Your task to perform on an android device: Check out the new ikea catalog. Image 0: 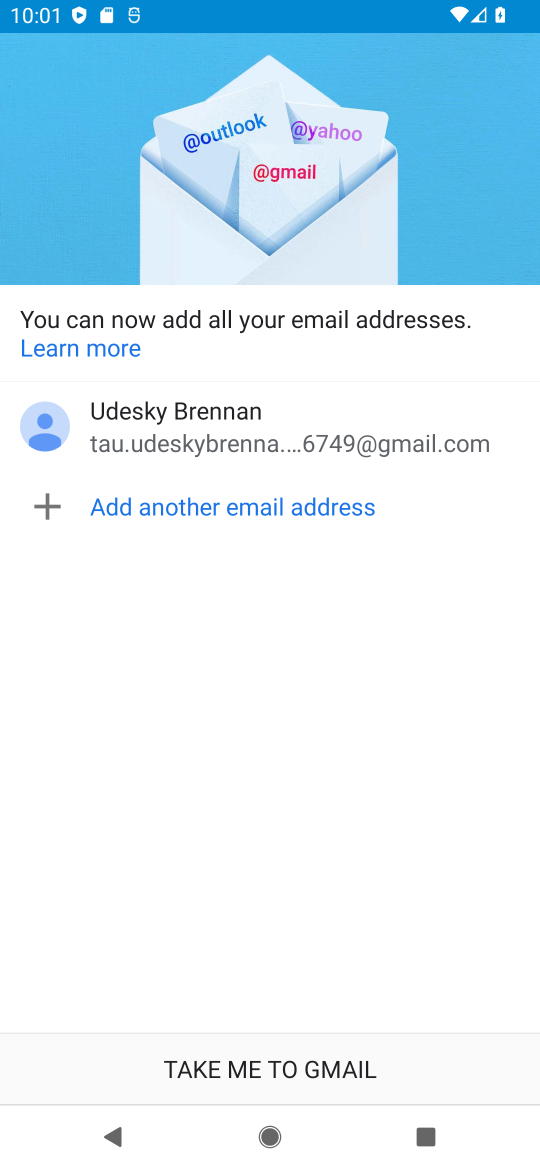
Step 0: press home button
Your task to perform on an android device: Check out the new ikea catalog. Image 1: 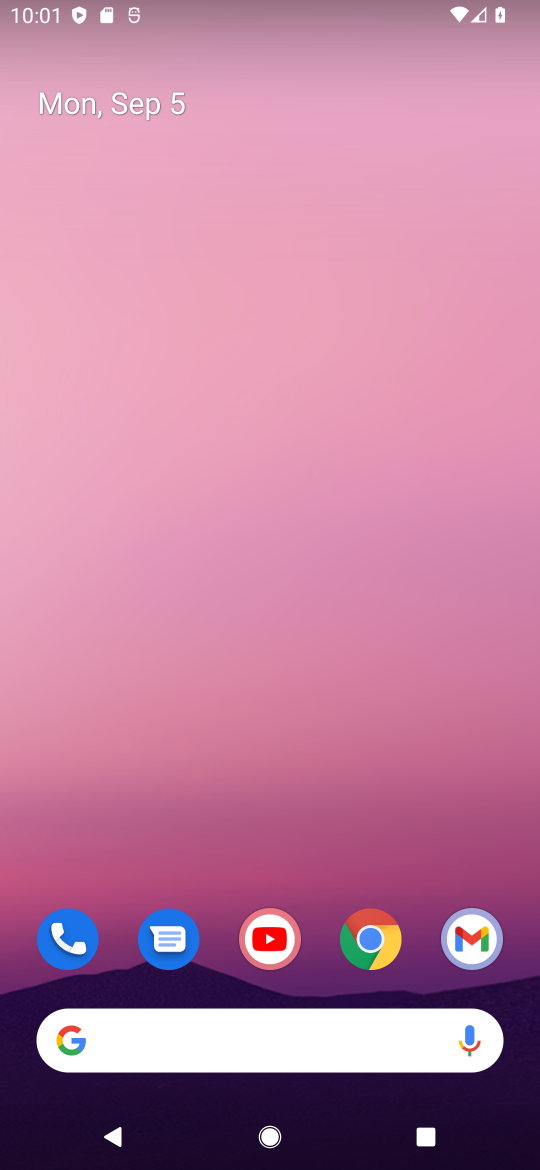
Step 1: drag from (293, 840) to (285, 64)
Your task to perform on an android device: Check out the new ikea catalog. Image 2: 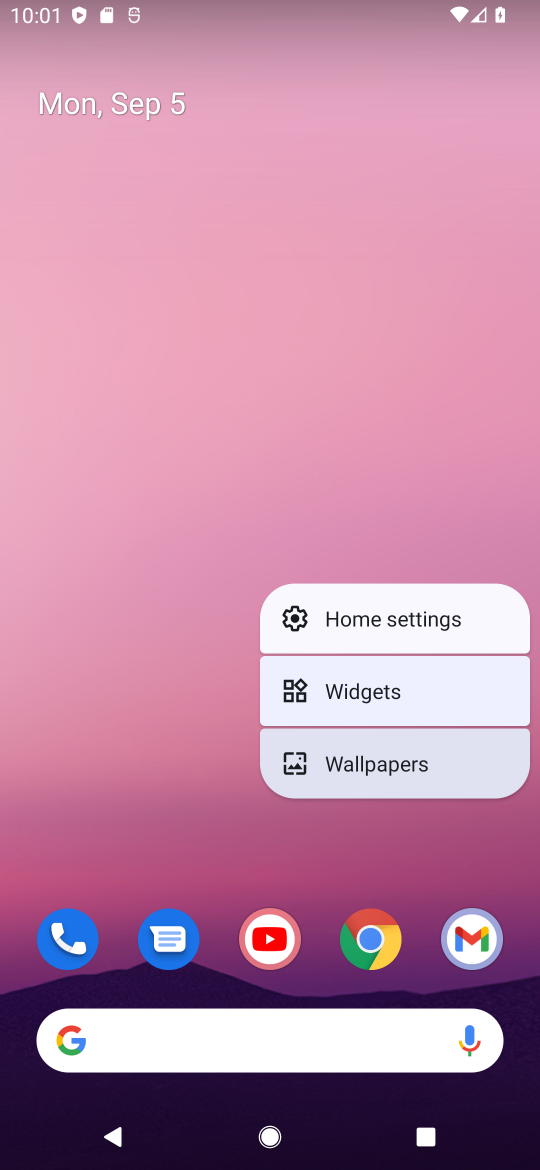
Step 2: click (320, 256)
Your task to perform on an android device: Check out the new ikea catalog. Image 3: 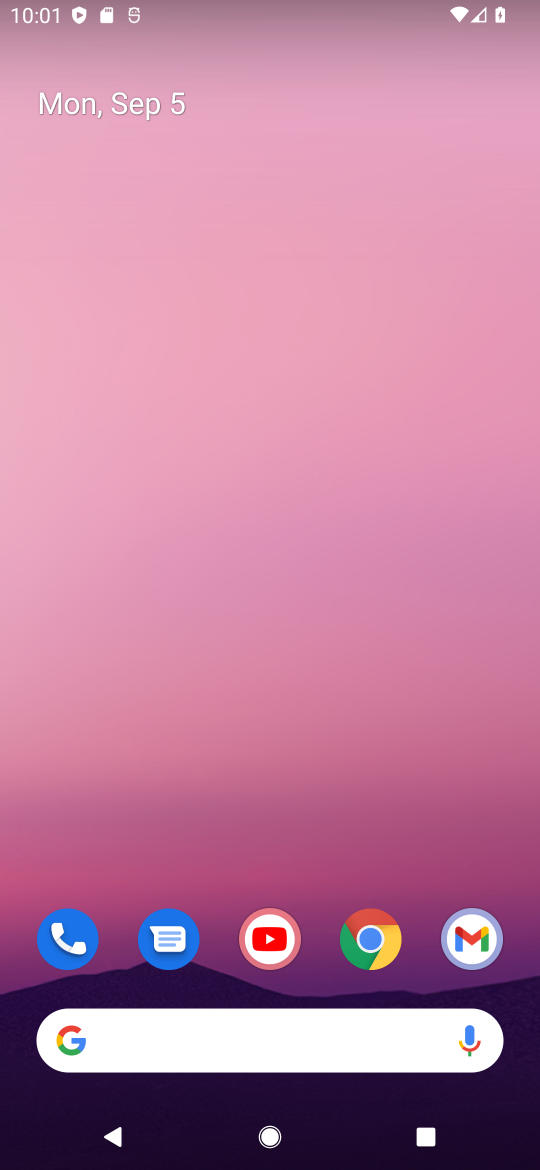
Step 3: drag from (335, 887) to (352, 229)
Your task to perform on an android device: Check out the new ikea catalog. Image 4: 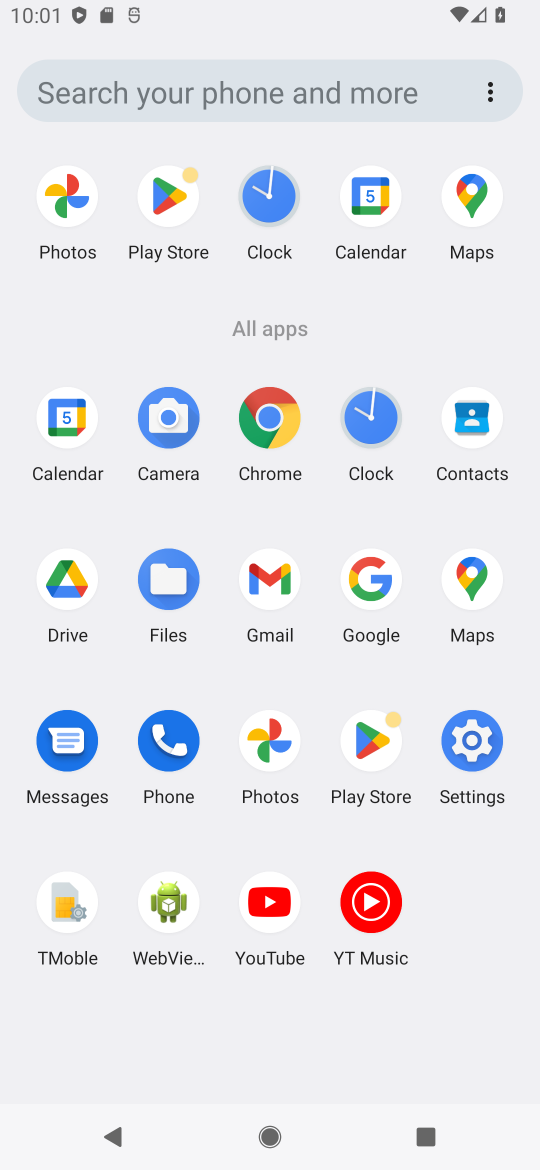
Step 4: click (283, 420)
Your task to perform on an android device: Check out the new ikea catalog. Image 5: 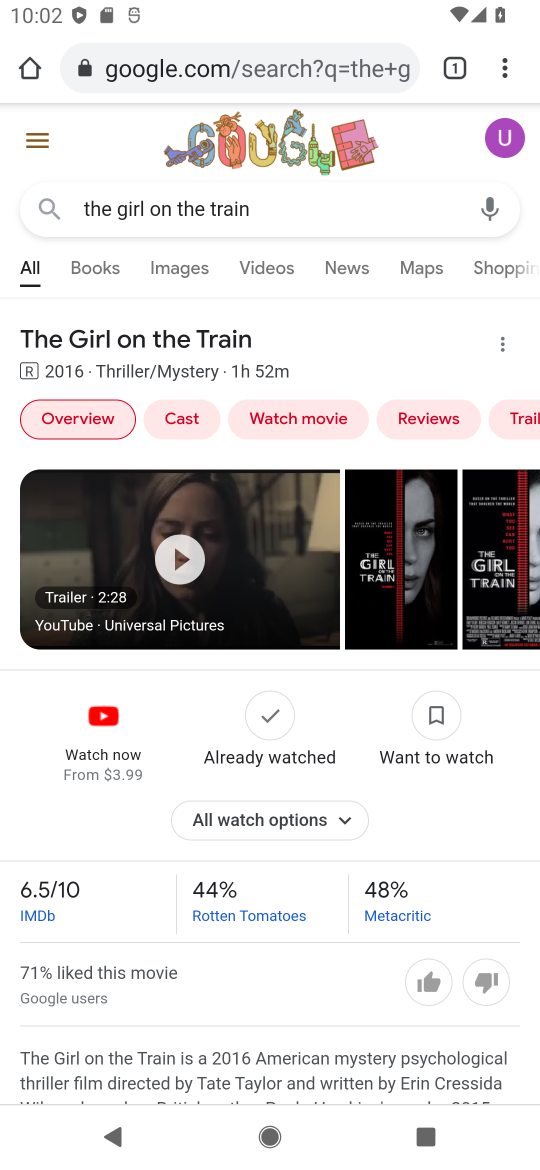
Step 5: click (281, 203)
Your task to perform on an android device: Check out the new ikea catalog. Image 6: 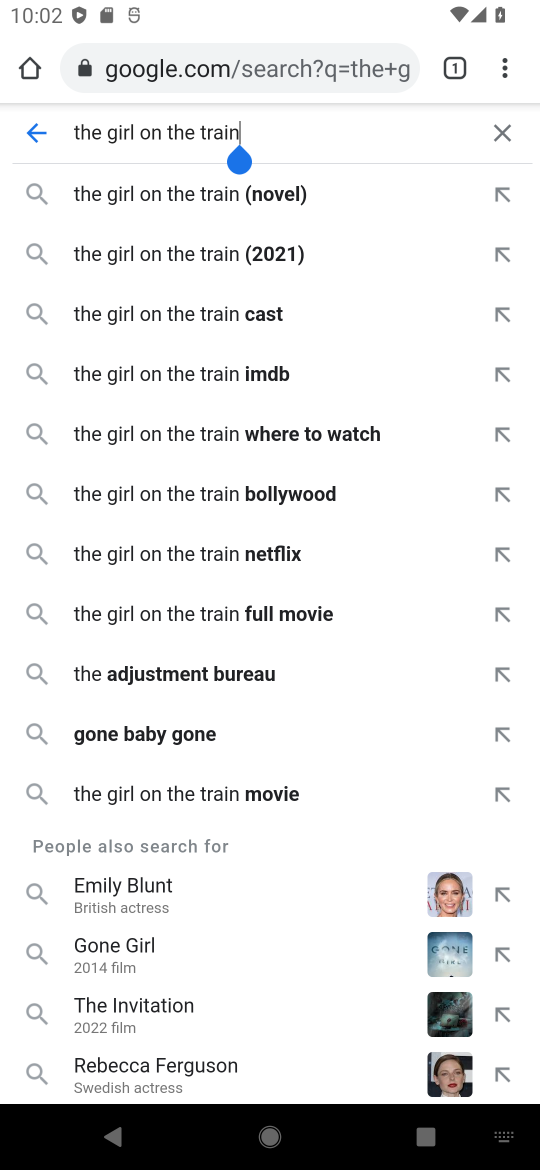
Step 6: click (175, 55)
Your task to perform on an android device: Check out the new ikea catalog. Image 7: 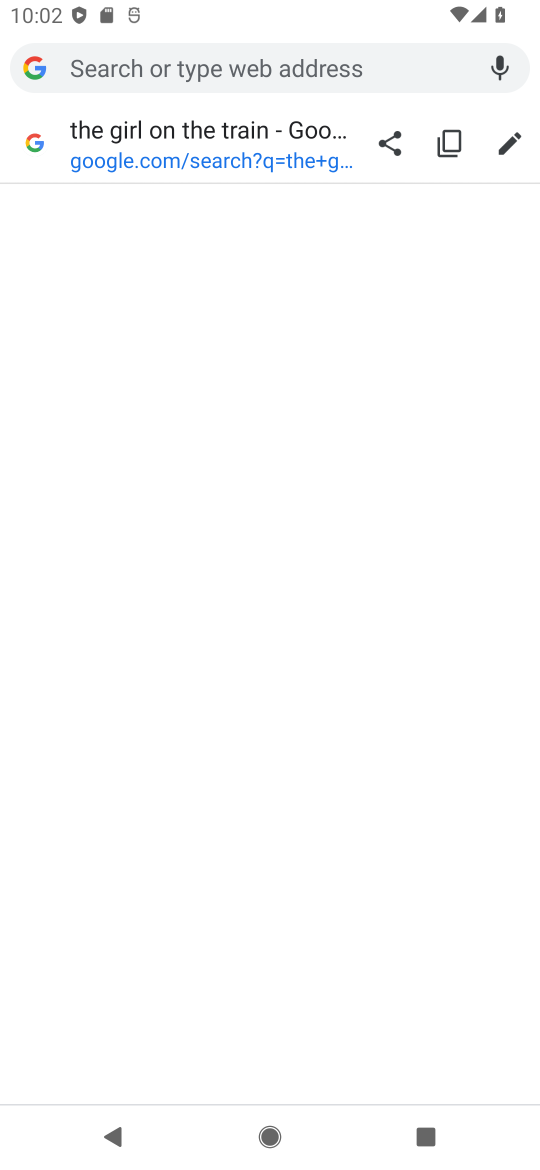
Step 7: type " new ikea catalog"
Your task to perform on an android device: Check out the new ikea catalog. Image 8: 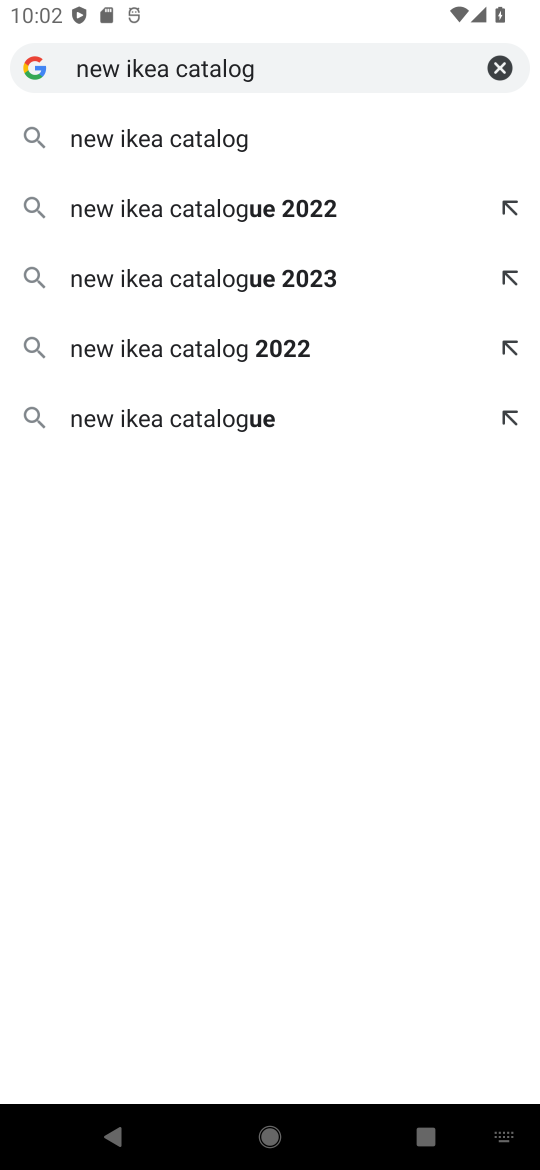
Step 8: click (189, 133)
Your task to perform on an android device: Check out the new ikea catalog. Image 9: 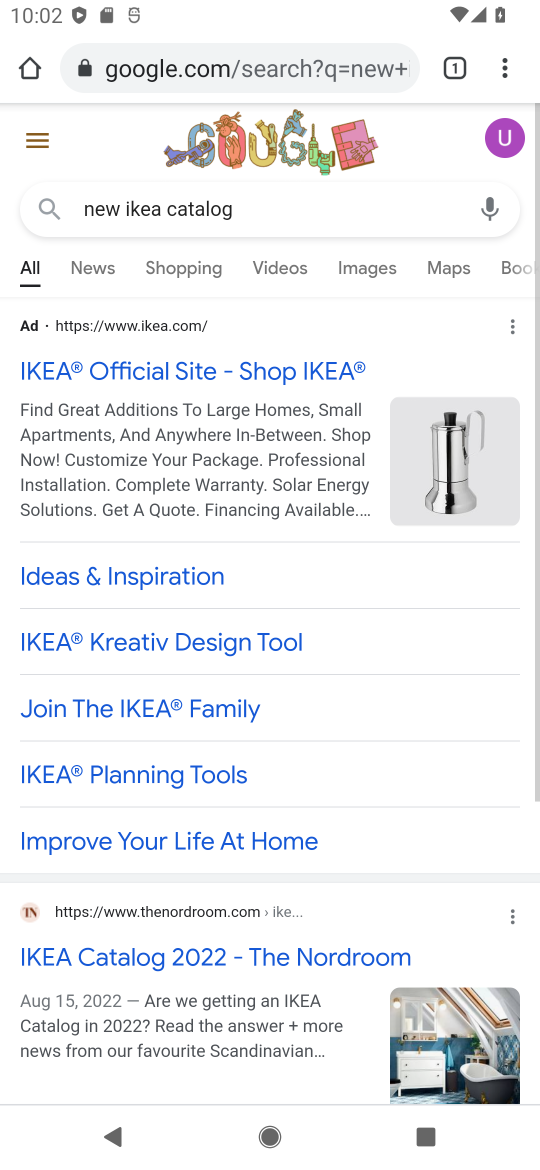
Step 9: click (130, 363)
Your task to perform on an android device: Check out the new ikea catalog. Image 10: 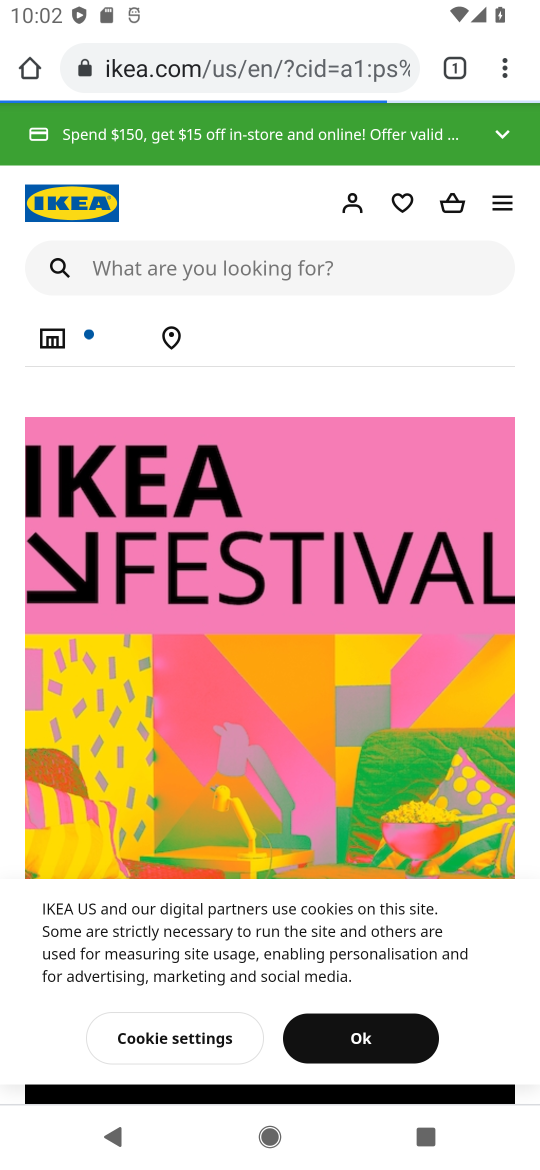
Step 10: drag from (332, 676) to (268, 296)
Your task to perform on an android device: Check out the new ikea catalog. Image 11: 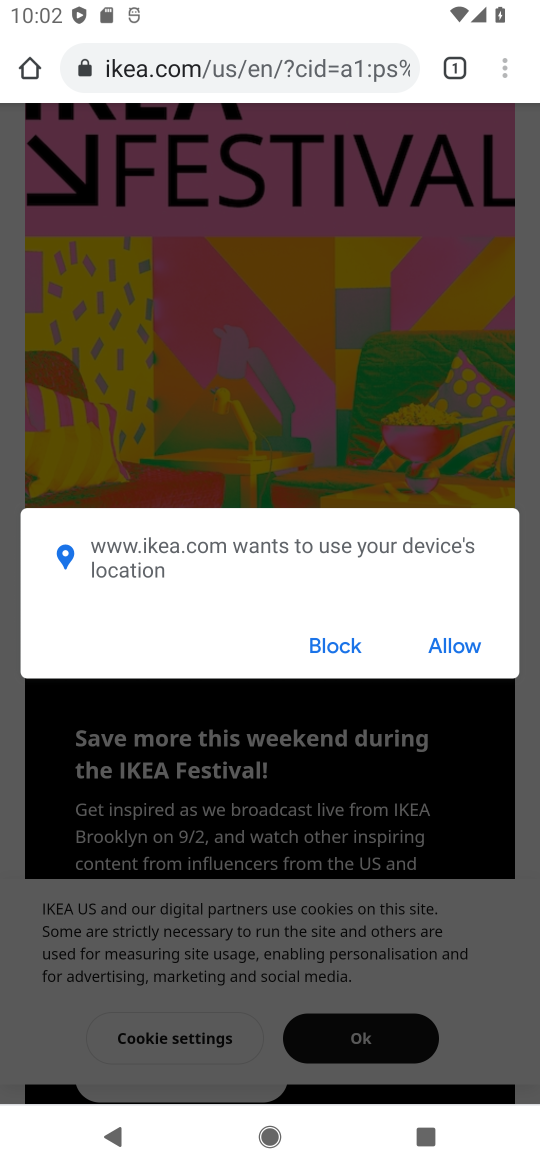
Step 11: click (438, 642)
Your task to perform on an android device: Check out the new ikea catalog. Image 12: 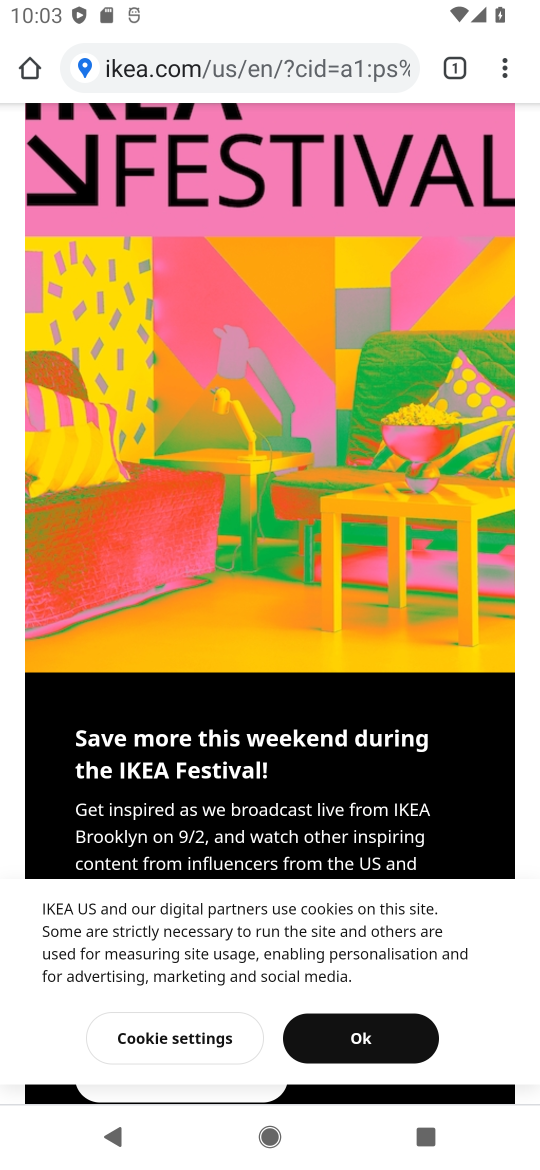
Step 12: task complete